Your task to perform on an android device: Go to internet settings Image 0: 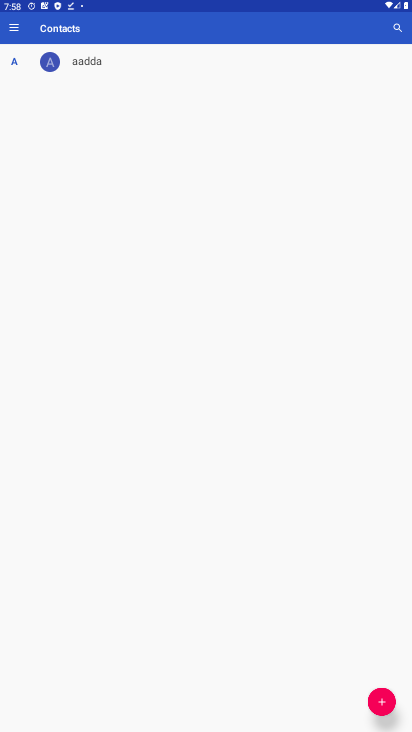
Step 0: press home button
Your task to perform on an android device: Go to internet settings Image 1: 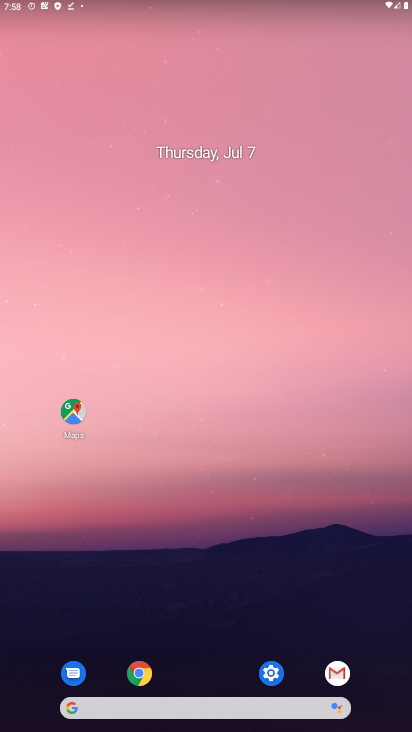
Step 1: click (269, 669)
Your task to perform on an android device: Go to internet settings Image 2: 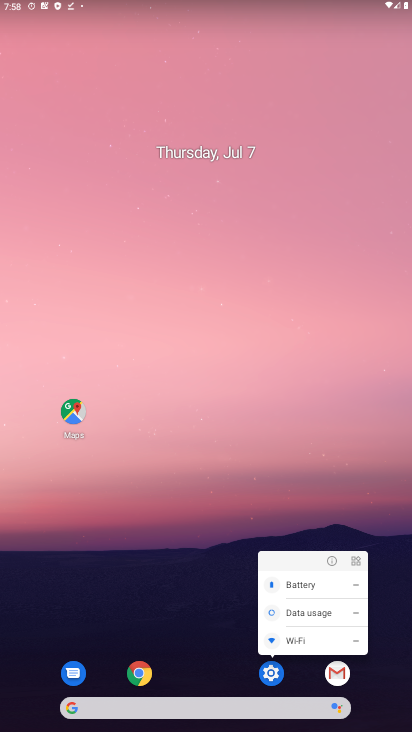
Step 2: click (269, 664)
Your task to perform on an android device: Go to internet settings Image 3: 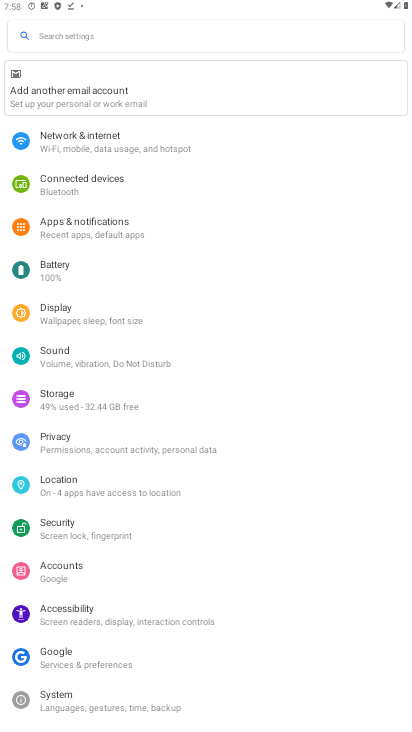
Step 3: click (118, 150)
Your task to perform on an android device: Go to internet settings Image 4: 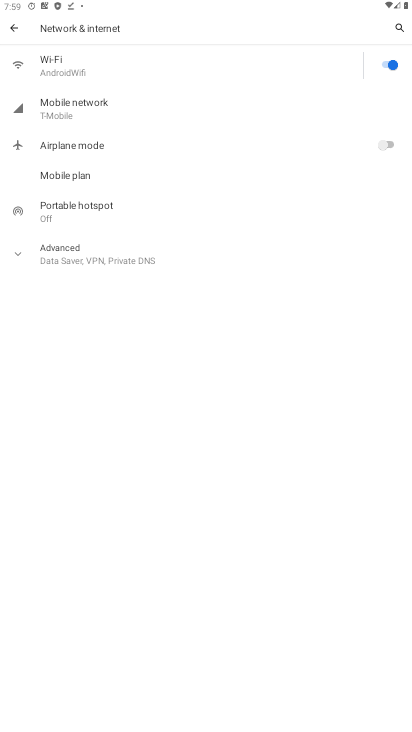
Step 4: task complete